Your task to perform on an android device: Search for razer thresher on bestbuy, select the first entry, add it to the cart, then select checkout. Image 0: 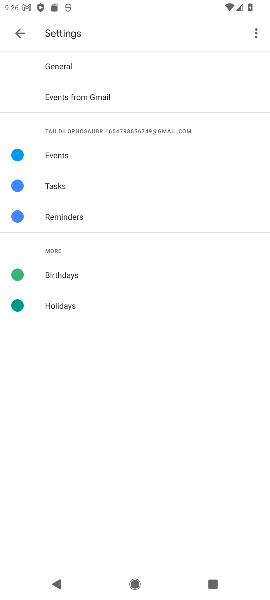
Step 0: press home button
Your task to perform on an android device: Search for razer thresher on bestbuy, select the first entry, add it to the cart, then select checkout. Image 1: 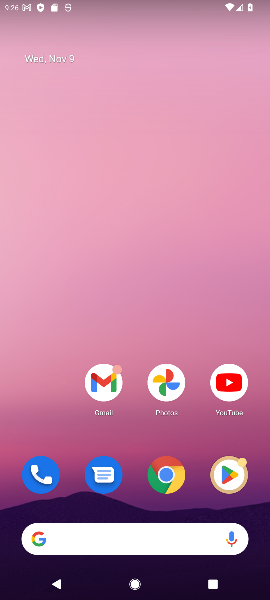
Step 1: click (170, 472)
Your task to perform on an android device: Search for razer thresher on bestbuy, select the first entry, add it to the cart, then select checkout. Image 2: 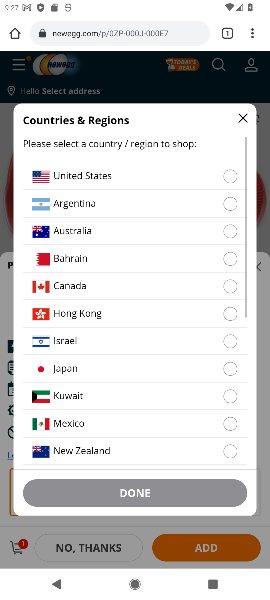
Step 2: click (231, 38)
Your task to perform on an android device: Search for razer thresher on bestbuy, select the first entry, add it to the cart, then select checkout. Image 3: 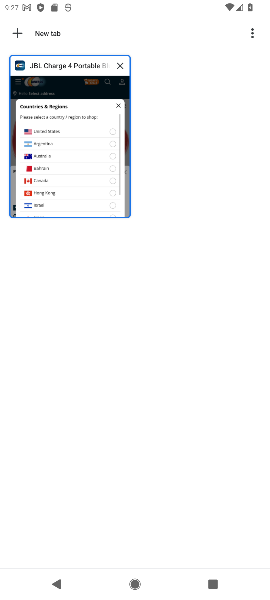
Step 3: click (17, 26)
Your task to perform on an android device: Search for razer thresher on bestbuy, select the first entry, add it to the cart, then select checkout. Image 4: 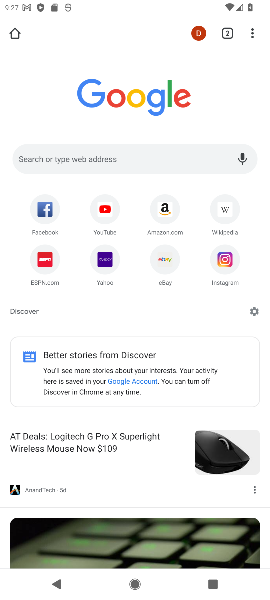
Step 4: click (65, 153)
Your task to perform on an android device: Search for razer thresher on bestbuy, select the first entry, add it to the cart, then select checkout. Image 5: 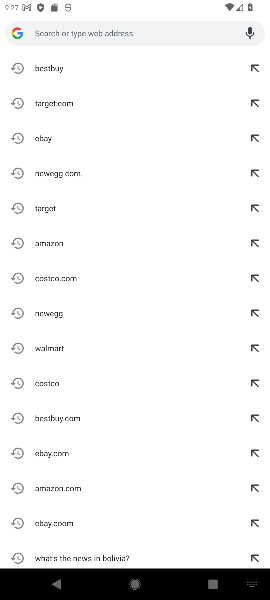
Step 5: click (55, 68)
Your task to perform on an android device: Search for razer thresher on bestbuy, select the first entry, add it to the cart, then select checkout. Image 6: 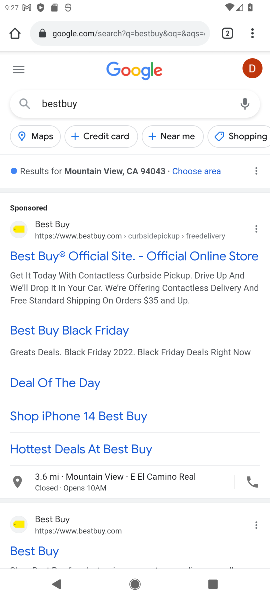
Step 6: drag from (137, 527) to (164, 292)
Your task to perform on an android device: Search for razer thresher on bestbuy, select the first entry, add it to the cart, then select checkout. Image 7: 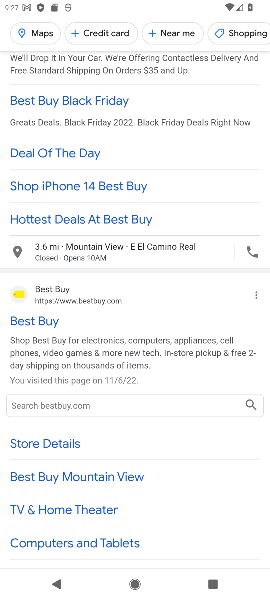
Step 7: click (44, 407)
Your task to perform on an android device: Search for razer thresher on bestbuy, select the first entry, add it to the cart, then select checkout. Image 8: 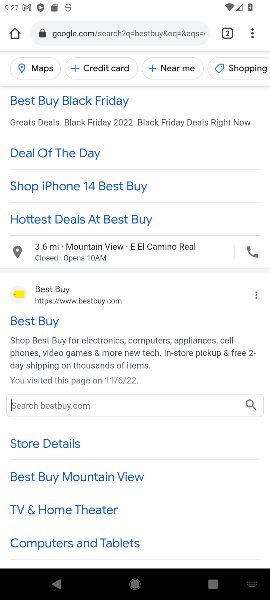
Step 8: type "razer thresher"
Your task to perform on an android device: Search for razer thresher on bestbuy, select the first entry, add it to the cart, then select checkout. Image 9: 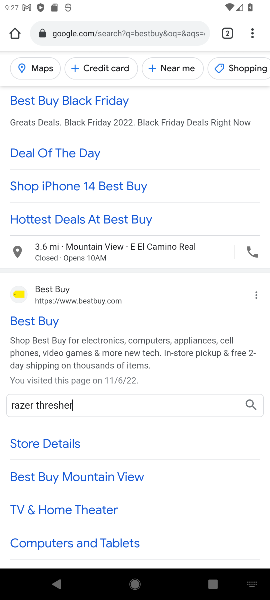
Step 9: click (250, 401)
Your task to perform on an android device: Search for razer thresher on bestbuy, select the first entry, add it to the cart, then select checkout. Image 10: 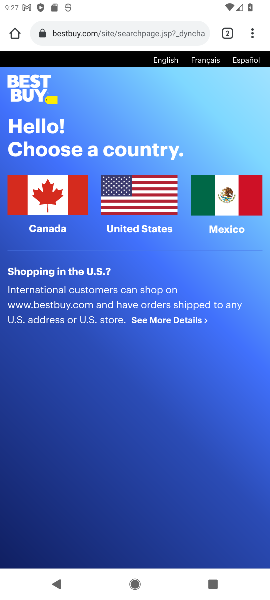
Step 10: click (143, 191)
Your task to perform on an android device: Search for razer thresher on bestbuy, select the first entry, add it to the cart, then select checkout. Image 11: 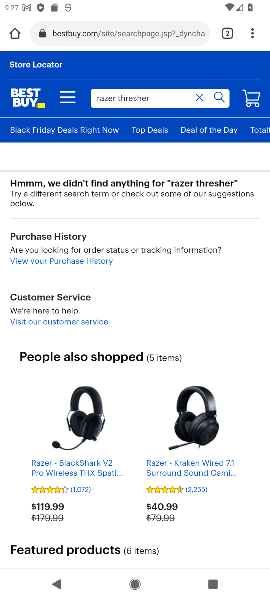
Step 11: drag from (157, 532) to (204, 307)
Your task to perform on an android device: Search for razer thresher on bestbuy, select the first entry, add it to the cart, then select checkout. Image 12: 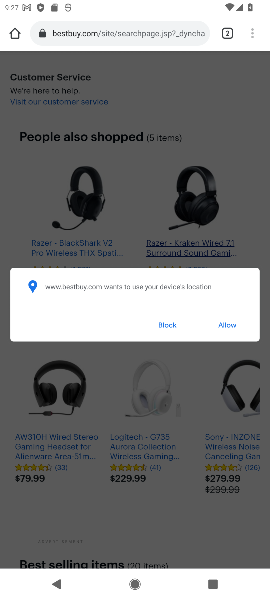
Step 12: click (160, 322)
Your task to perform on an android device: Search for razer thresher on bestbuy, select the first entry, add it to the cart, then select checkout. Image 13: 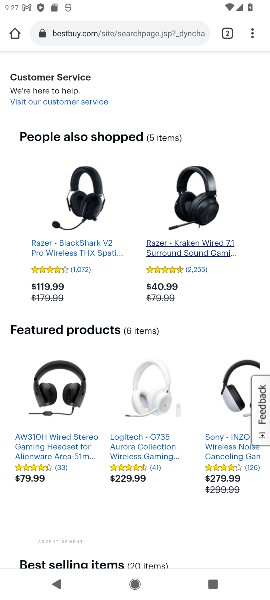
Step 13: click (83, 250)
Your task to perform on an android device: Search for razer thresher on bestbuy, select the first entry, add it to the cart, then select checkout. Image 14: 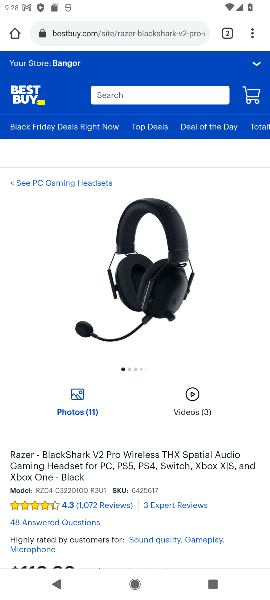
Step 14: drag from (148, 468) to (186, 221)
Your task to perform on an android device: Search for razer thresher on bestbuy, select the first entry, add it to the cart, then select checkout. Image 15: 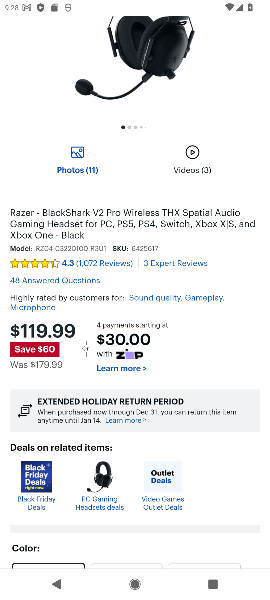
Step 15: drag from (159, 448) to (239, 173)
Your task to perform on an android device: Search for razer thresher on bestbuy, select the first entry, add it to the cart, then select checkout. Image 16: 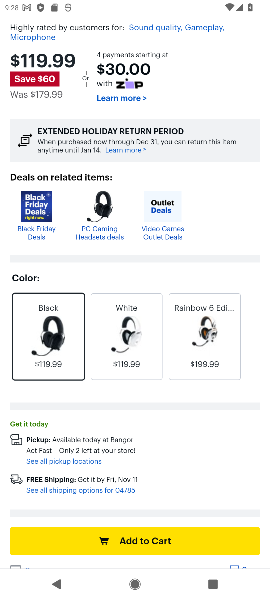
Step 16: click (141, 541)
Your task to perform on an android device: Search for razer thresher on bestbuy, select the first entry, add it to the cart, then select checkout. Image 17: 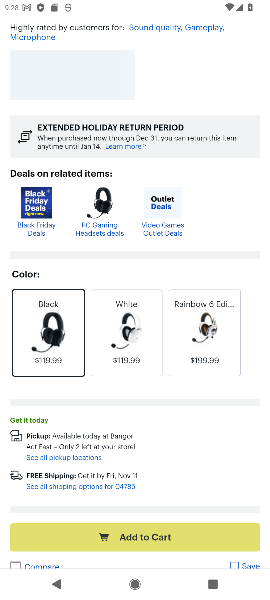
Step 17: task complete